Your task to perform on an android device: change timer sound Image 0: 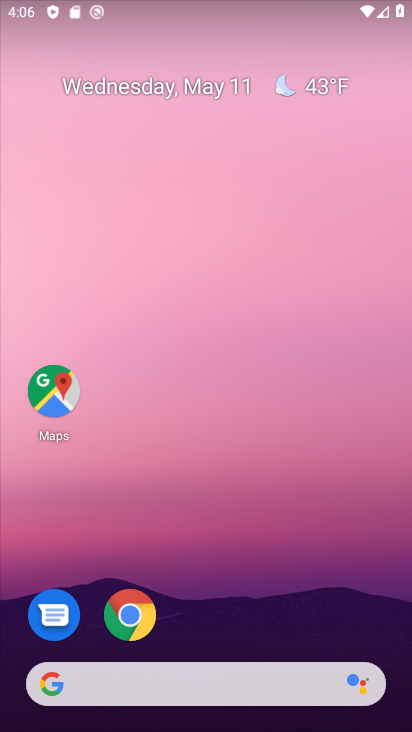
Step 0: drag from (228, 537) to (218, 39)
Your task to perform on an android device: change timer sound Image 1: 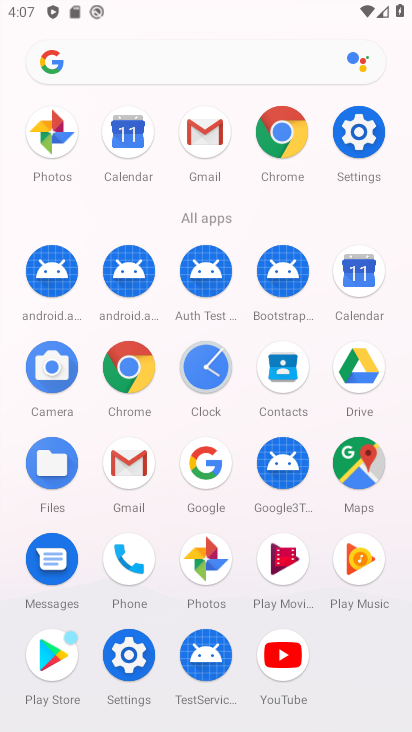
Step 1: click (206, 367)
Your task to perform on an android device: change timer sound Image 2: 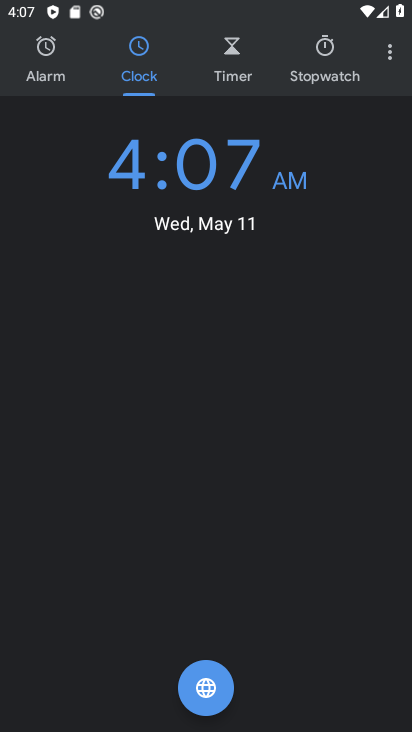
Step 2: drag from (384, 53) to (342, 111)
Your task to perform on an android device: change timer sound Image 3: 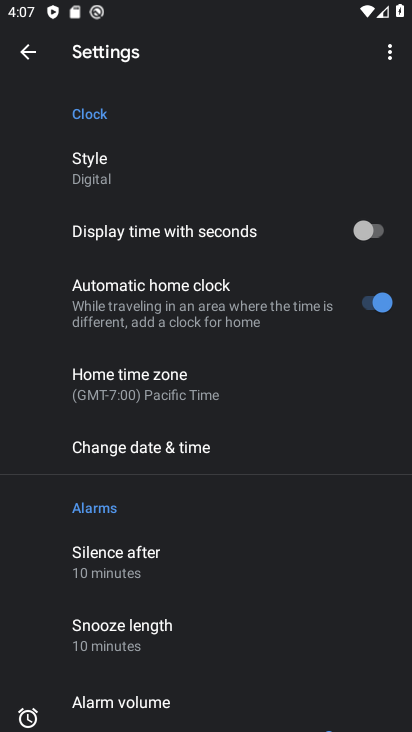
Step 3: drag from (201, 472) to (203, 161)
Your task to perform on an android device: change timer sound Image 4: 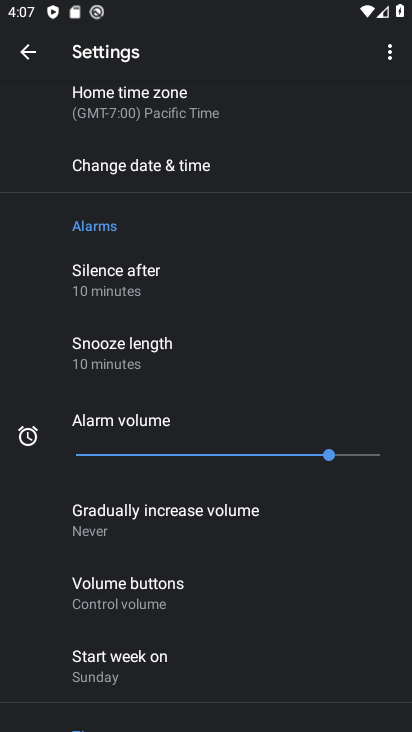
Step 4: drag from (226, 126) to (240, 522)
Your task to perform on an android device: change timer sound Image 5: 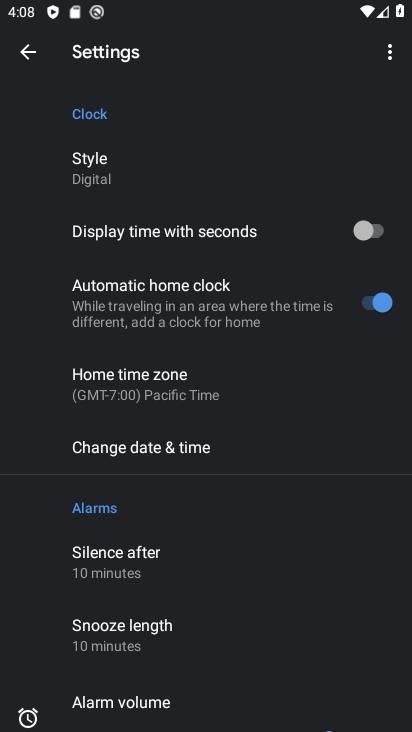
Step 5: drag from (222, 470) to (191, 174)
Your task to perform on an android device: change timer sound Image 6: 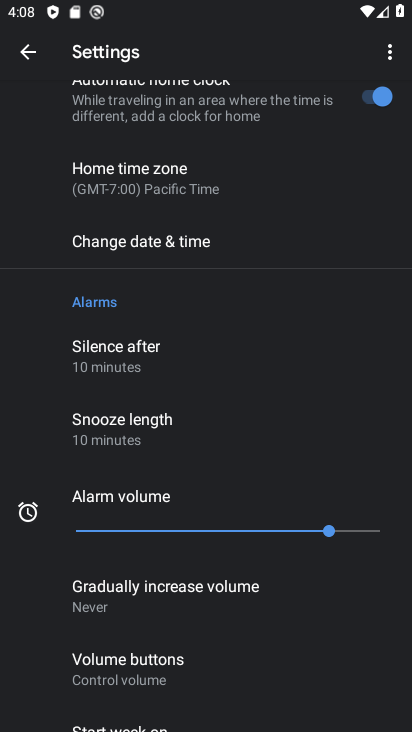
Step 6: drag from (213, 594) to (214, 184)
Your task to perform on an android device: change timer sound Image 7: 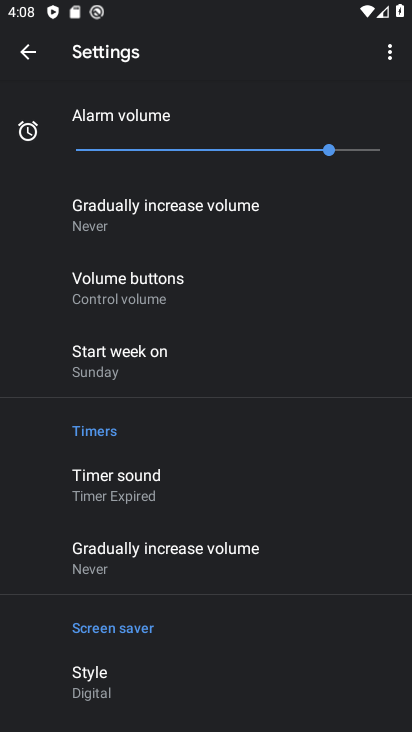
Step 7: click (168, 495)
Your task to perform on an android device: change timer sound Image 8: 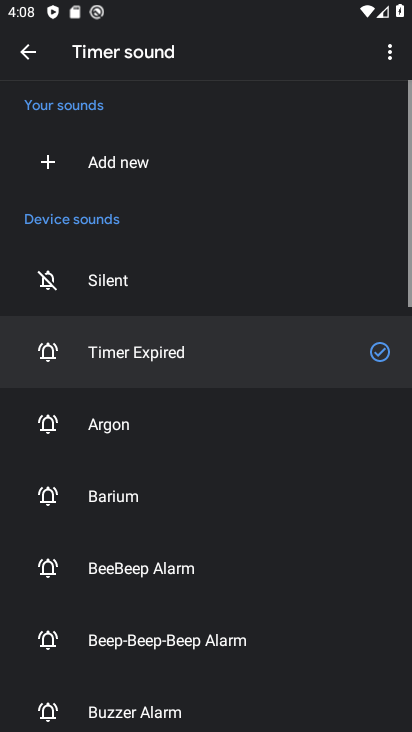
Step 8: drag from (189, 587) to (230, 269)
Your task to perform on an android device: change timer sound Image 9: 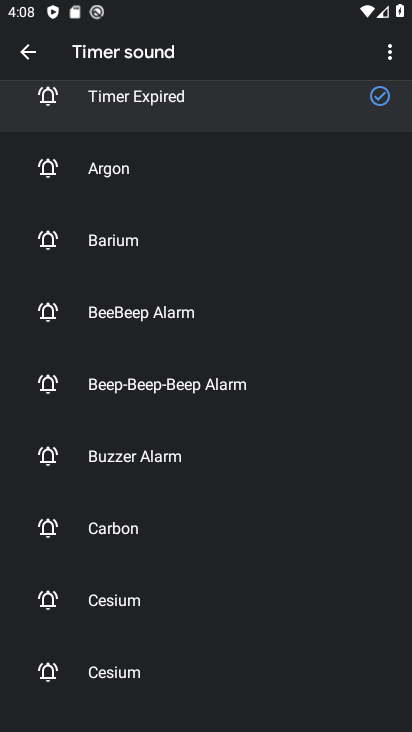
Step 9: click (134, 453)
Your task to perform on an android device: change timer sound Image 10: 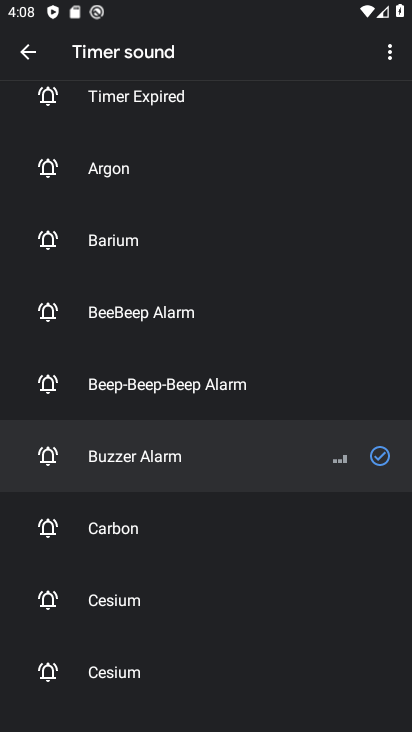
Step 10: task complete